Your task to perform on an android device: refresh tabs in the chrome app Image 0: 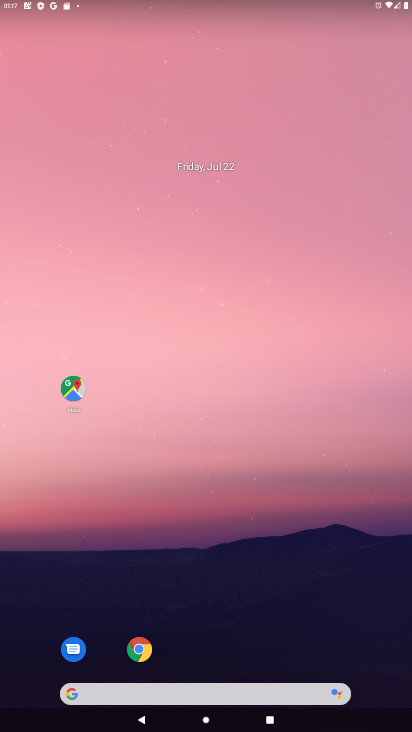
Step 0: press home button
Your task to perform on an android device: refresh tabs in the chrome app Image 1: 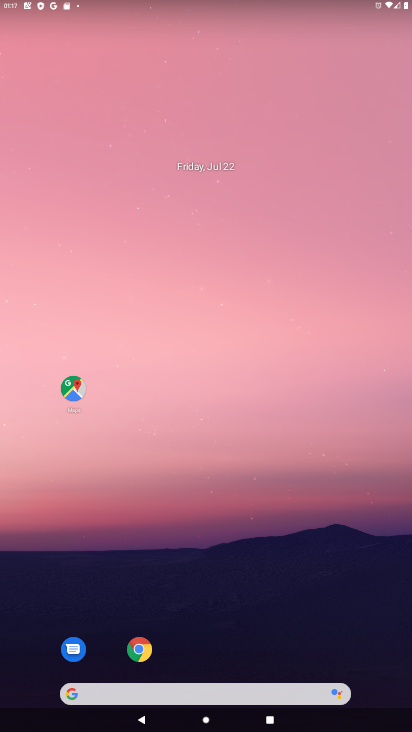
Step 1: drag from (275, 609) to (277, 234)
Your task to perform on an android device: refresh tabs in the chrome app Image 2: 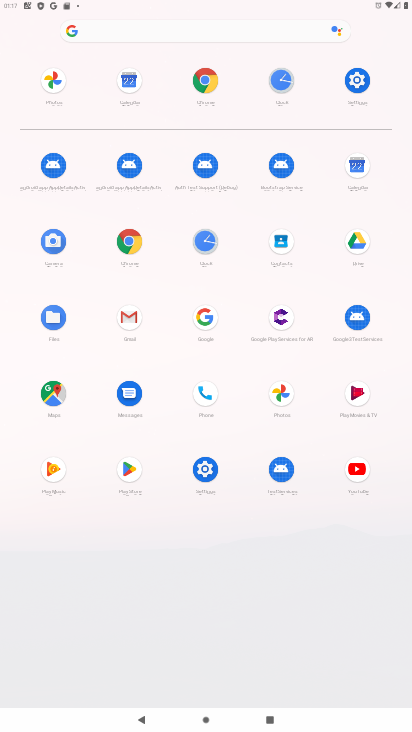
Step 2: click (208, 82)
Your task to perform on an android device: refresh tabs in the chrome app Image 3: 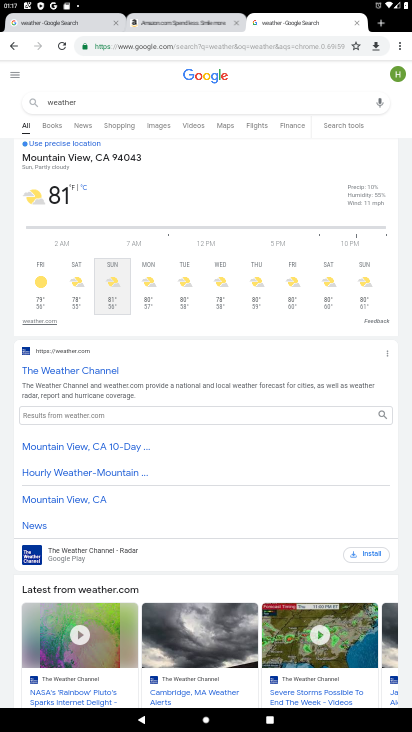
Step 3: drag from (403, 47) to (182, 63)
Your task to perform on an android device: refresh tabs in the chrome app Image 4: 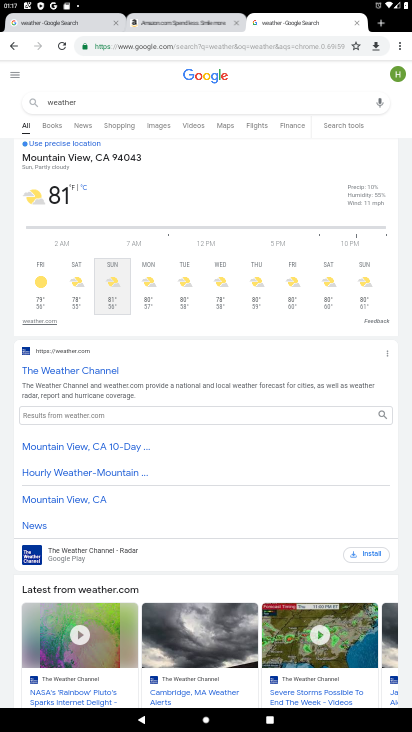
Step 4: click (70, 45)
Your task to perform on an android device: refresh tabs in the chrome app Image 5: 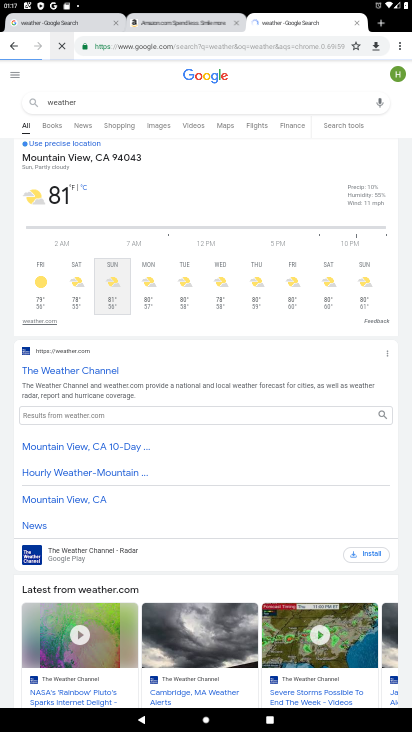
Step 5: click (60, 45)
Your task to perform on an android device: refresh tabs in the chrome app Image 6: 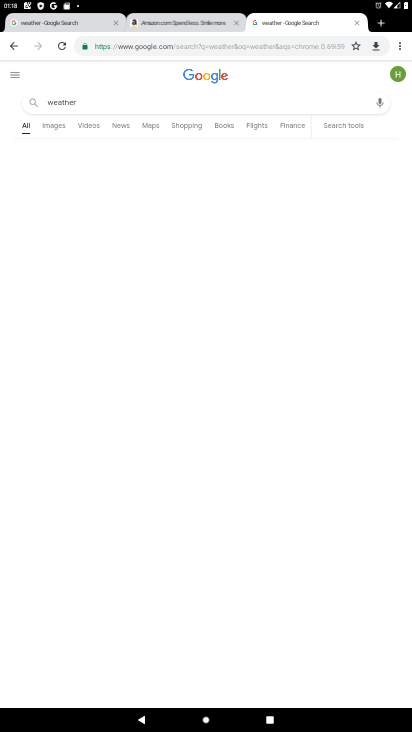
Step 6: task complete